Your task to perform on an android device: Open Google Chrome Image 0: 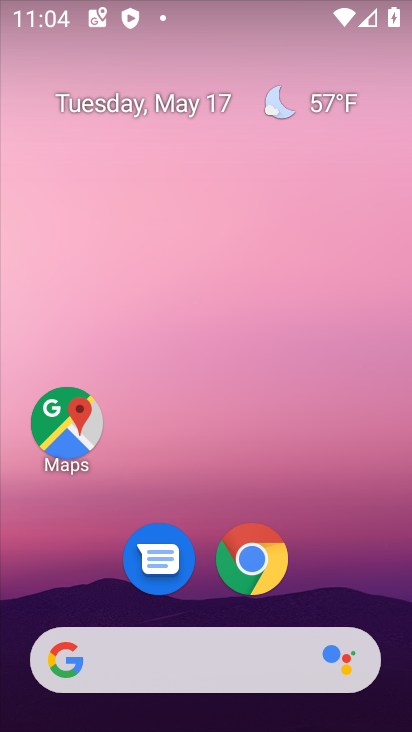
Step 0: click (260, 583)
Your task to perform on an android device: Open Google Chrome Image 1: 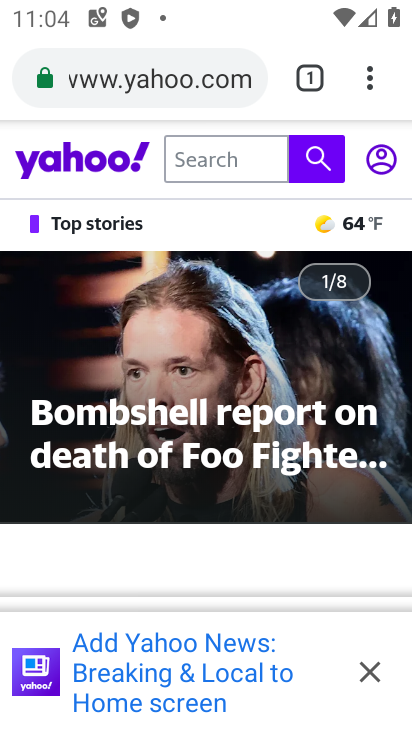
Step 1: task complete